Your task to perform on an android device: Open maps Image 0: 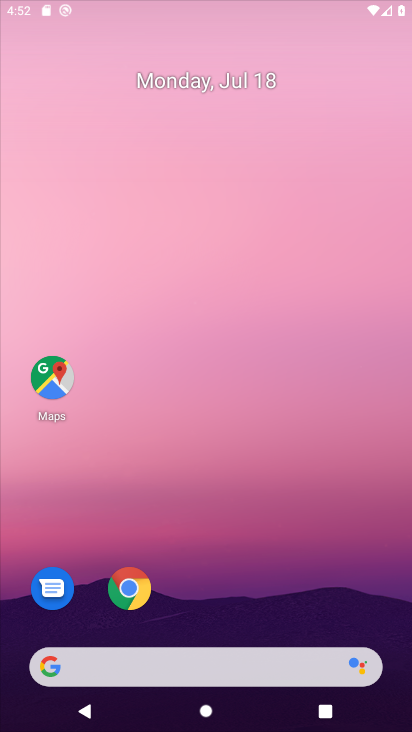
Step 0: drag from (232, 614) to (175, 410)
Your task to perform on an android device: Open maps Image 1: 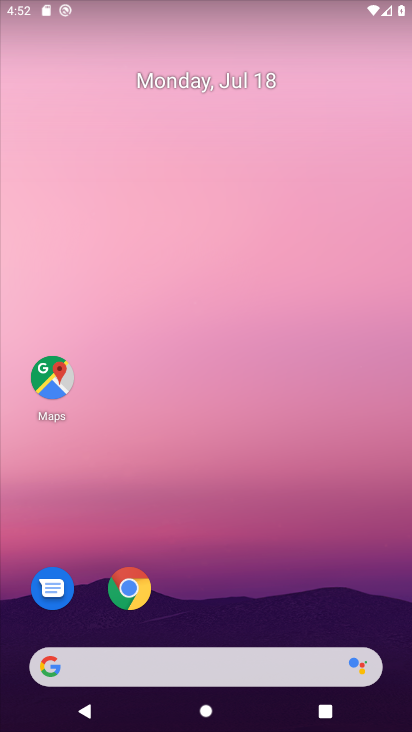
Step 1: drag from (256, 636) to (181, 127)
Your task to perform on an android device: Open maps Image 2: 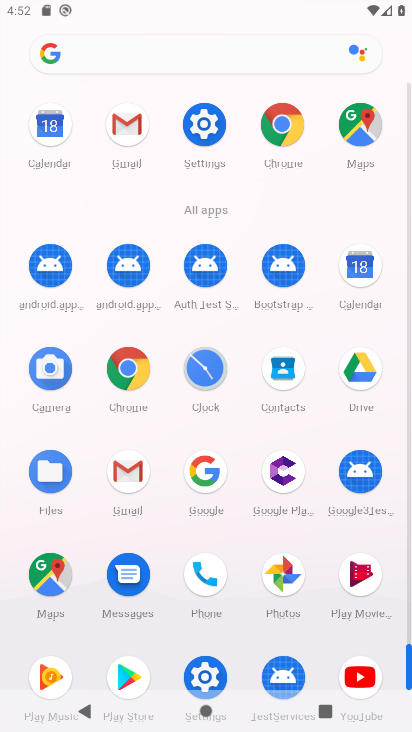
Step 2: click (372, 122)
Your task to perform on an android device: Open maps Image 3: 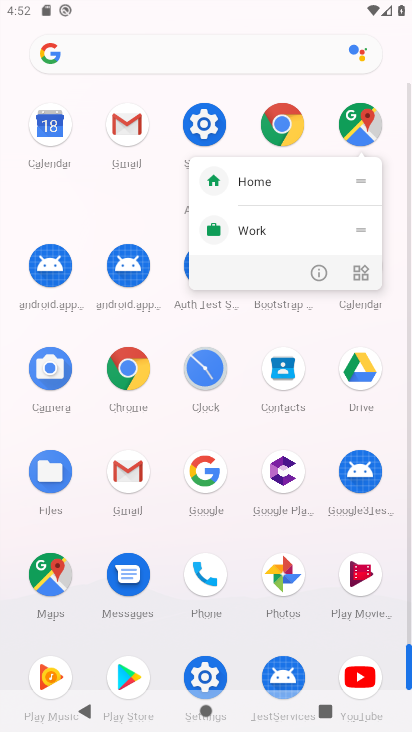
Step 3: click (347, 125)
Your task to perform on an android device: Open maps Image 4: 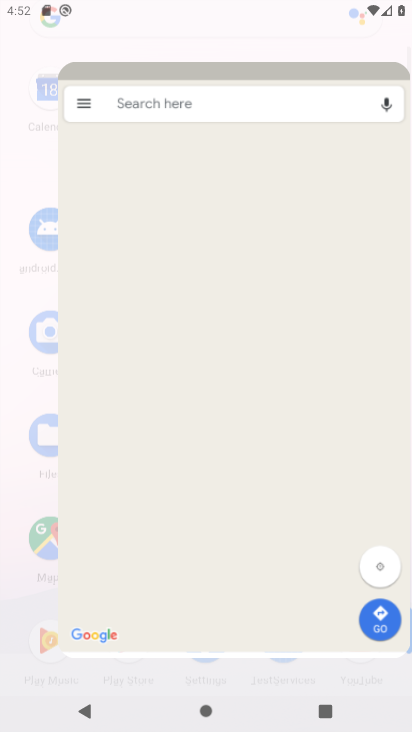
Step 4: click (347, 138)
Your task to perform on an android device: Open maps Image 5: 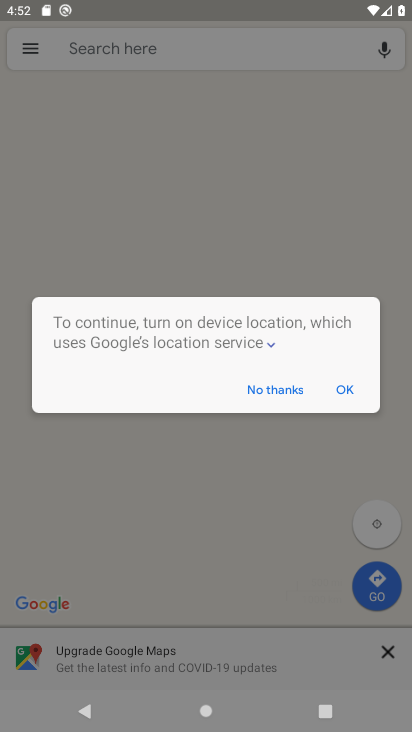
Step 5: task complete